Your task to perform on an android device: turn smart compose on in the gmail app Image 0: 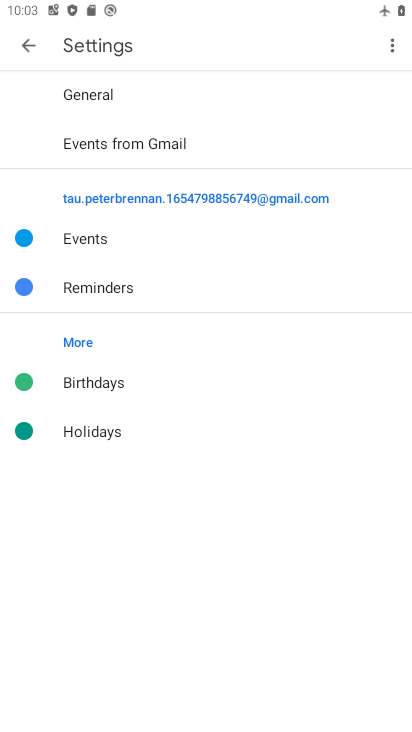
Step 0: press home button
Your task to perform on an android device: turn smart compose on in the gmail app Image 1: 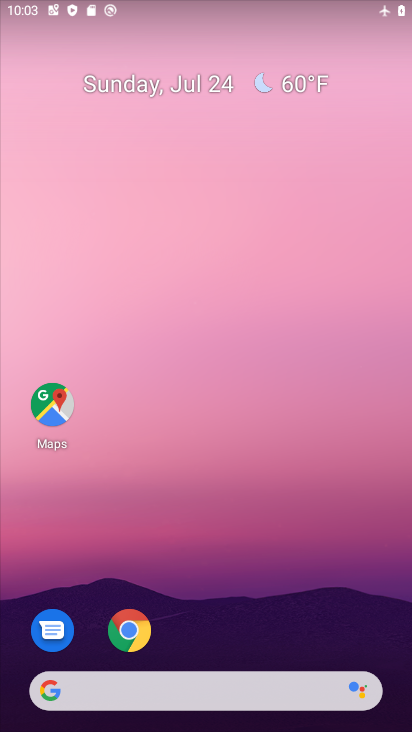
Step 1: drag from (230, 643) to (269, 1)
Your task to perform on an android device: turn smart compose on in the gmail app Image 2: 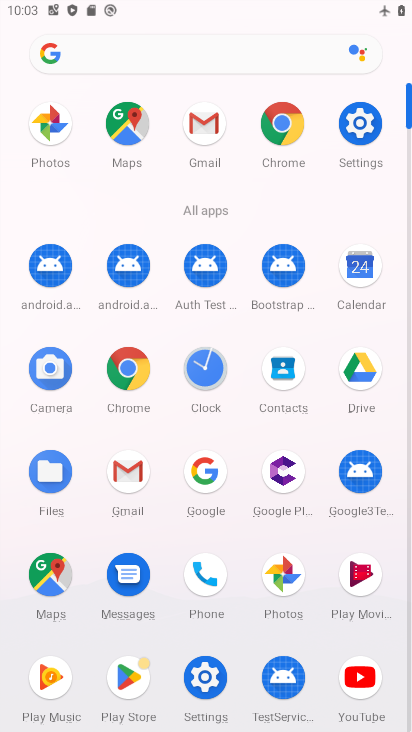
Step 2: click (125, 468)
Your task to perform on an android device: turn smart compose on in the gmail app Image 3: 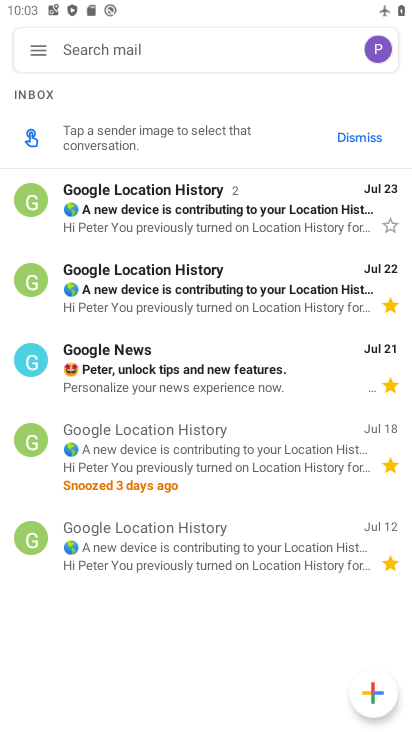
Step 3: click (31, 60)
Your task to perform on an android device: turn smart compose on in the gmail app Image 4: 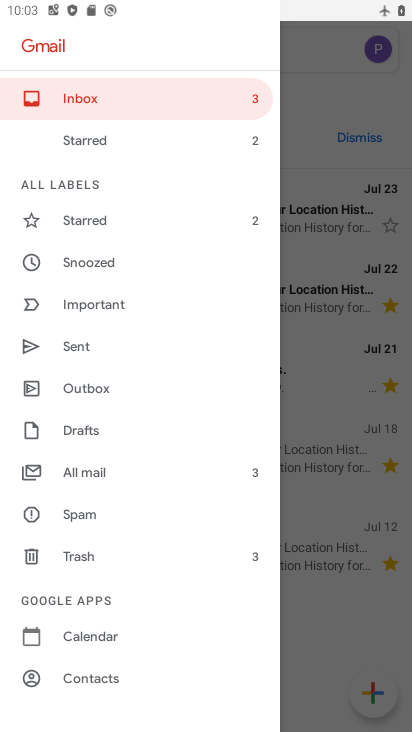
Step 4: drag from (106, 669) to (165, 45)
Your task to perform on an android device: turn smart compose on in the gmail app Image 5: 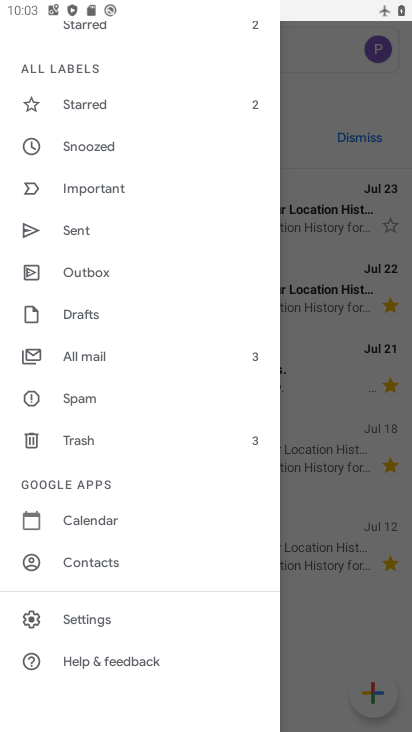
Step 5: click (104, 632)
Your task to perform on an android device: turn smart compose on in the gmail app Image 6: 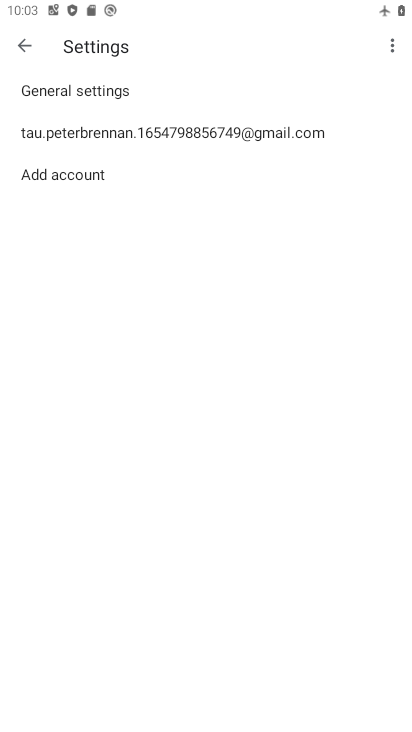
Step 6: click (90, 140)
Your task to perform on an android device: turn smart compose on in the gmail app Image 7: 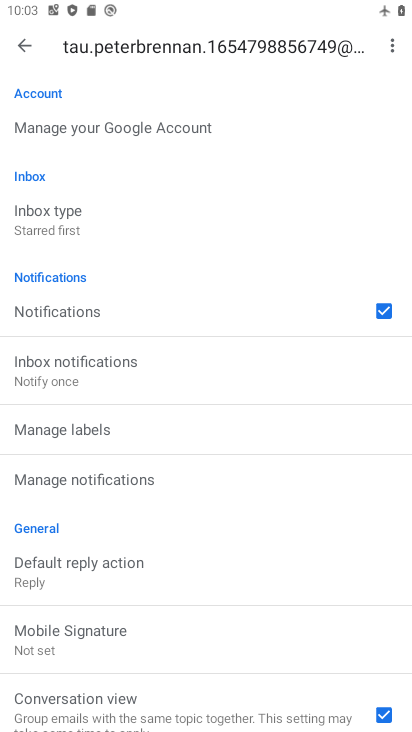
Step 7: task complete